Your task to perform on an android device: Open settings on Google Maps Image 0: 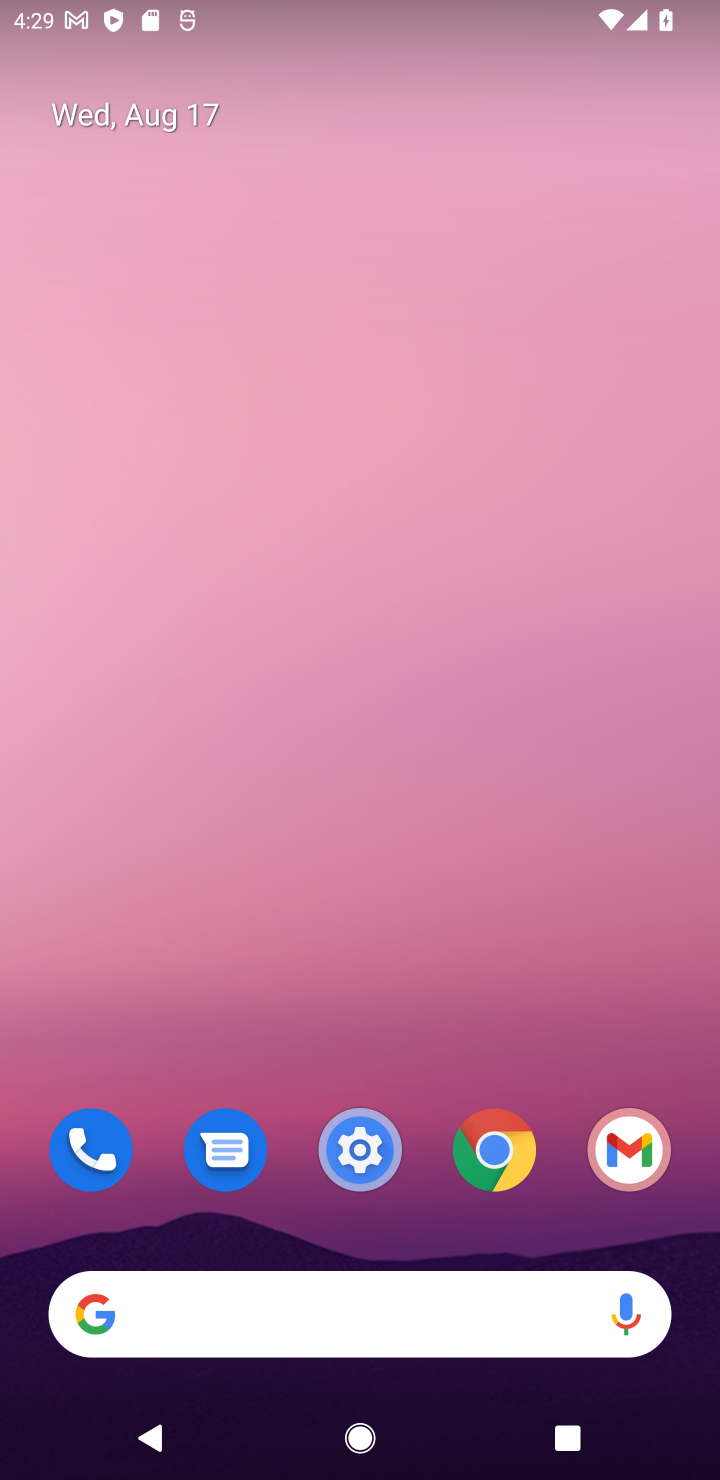
Step 0: drag from (526, 951) to (321, 39)
Your task to perform on an android device: Open settings on Google Maps Image 1: 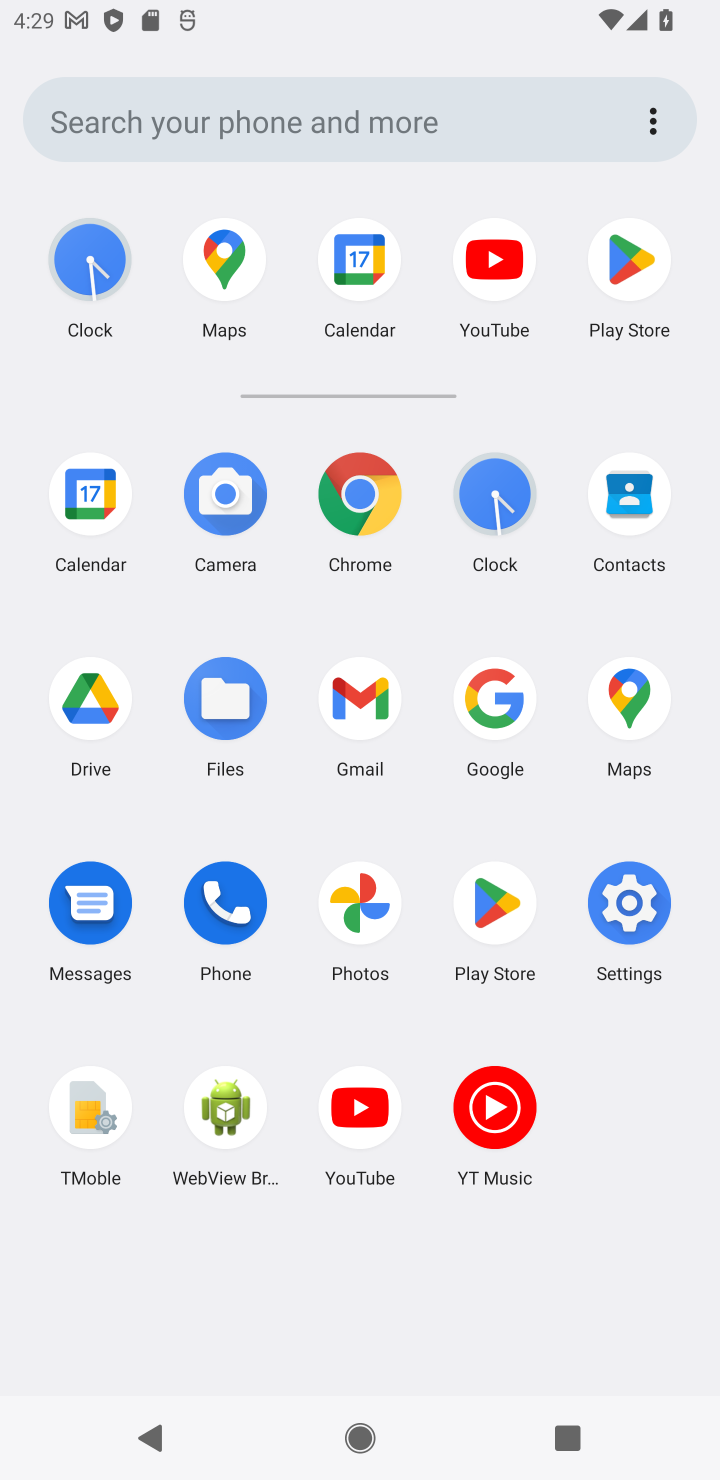
Step 1: click (613, 682)
Your task to perform on an android device: Open settings on Google Maps Image 2: 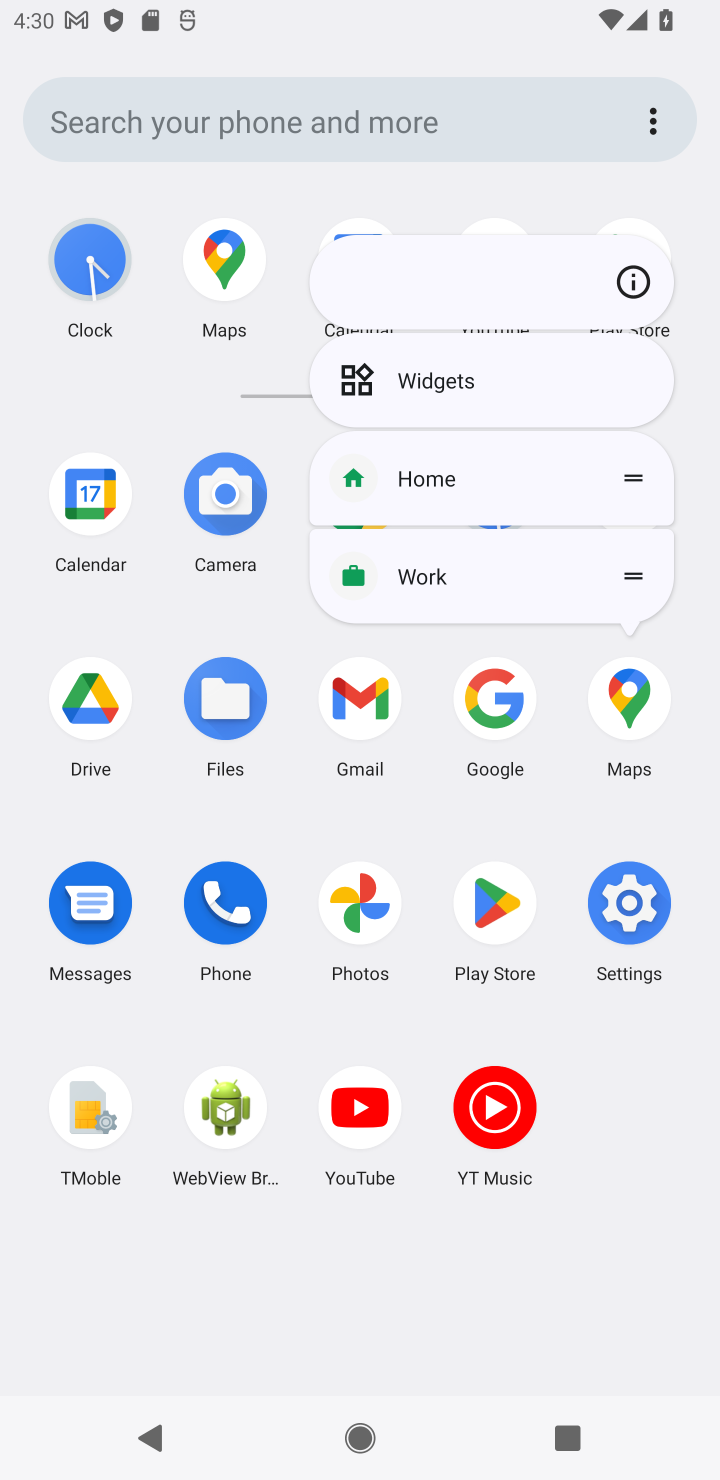
Step 2: click (613, 680)
Your task to perform on an android device: Open settings on Google Maps Image 3: 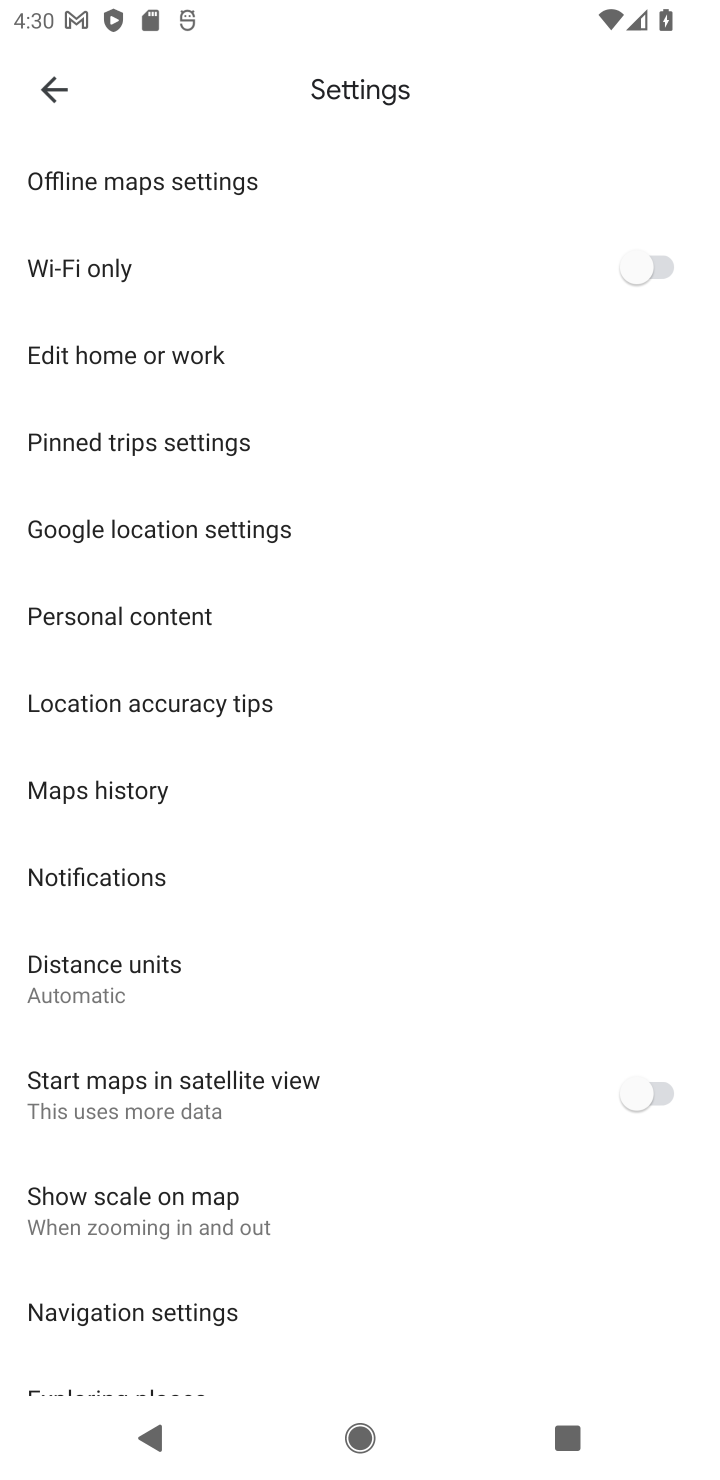
Step 3: task complete